Your task to perform on an android device: turn off airplane mode Image 0: 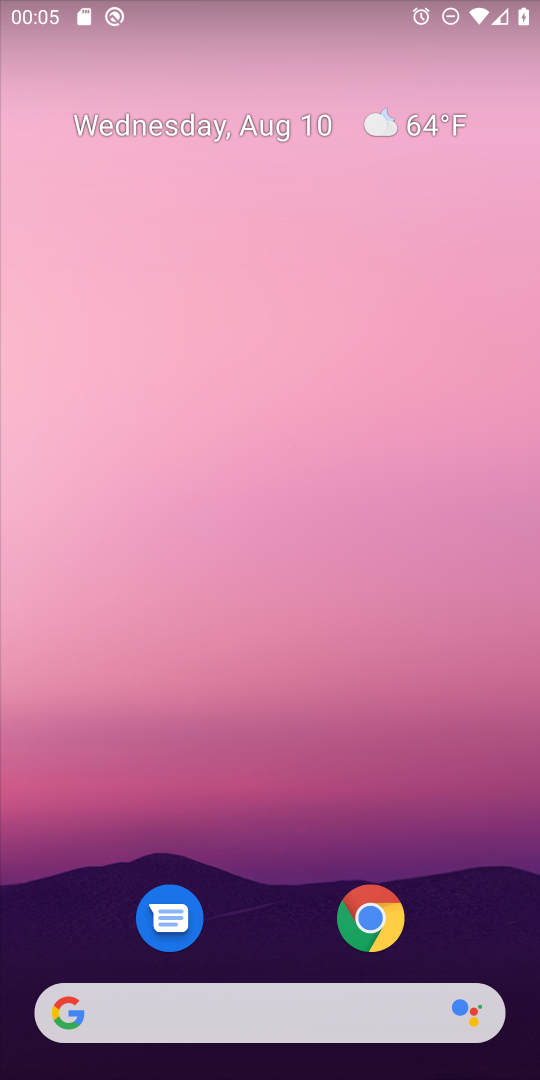
Step 0: drag from (263, 860) to (210, 167)
Your task to perform on an android device: turn off airplane mode Image 1: 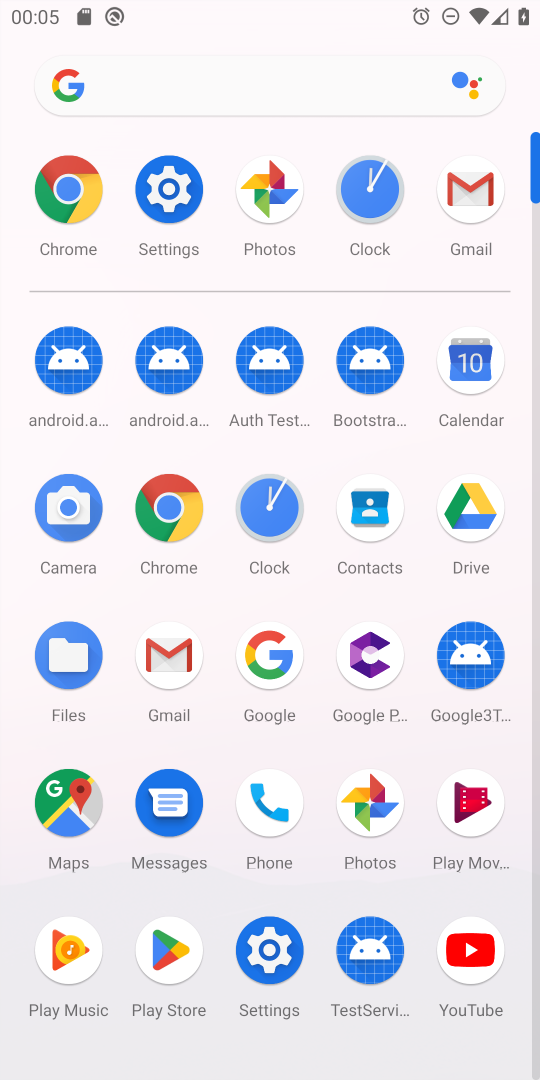
Step 1: click (265, 949)
Your task to perform on an android device: turn off airplane mode Image 2: 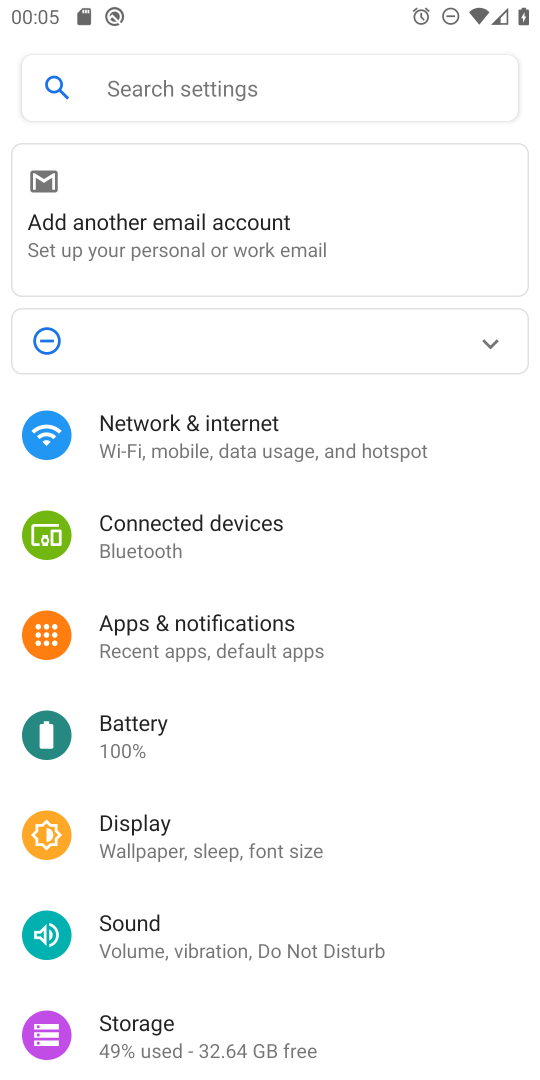
Step 2: click (184, 437)
Your task to perform on an android device: turn off airplane mode Image 3: 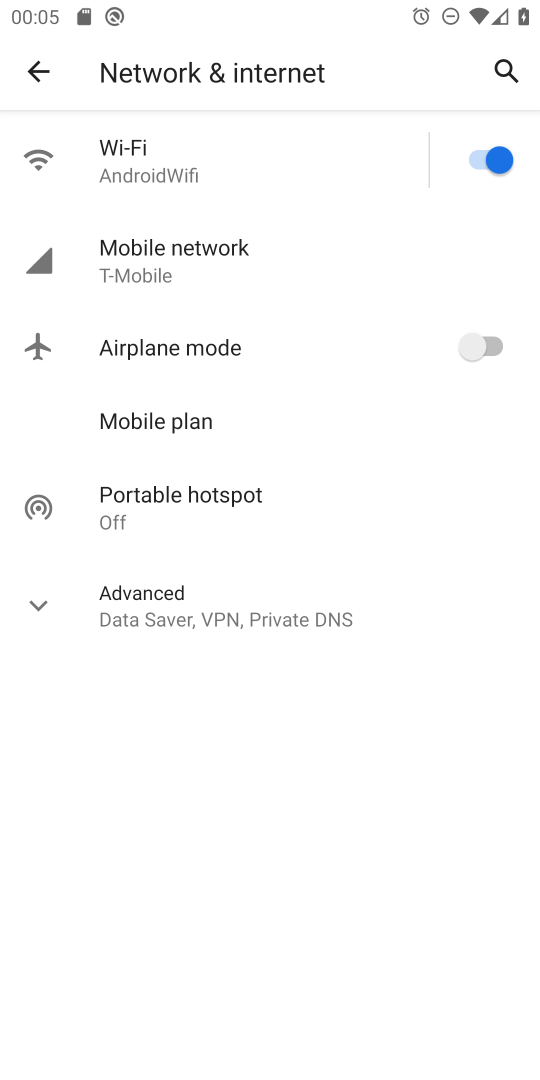
Step 3: task complete